Your task to perform on an android device: move a message to another label in the gmail app Image 0: 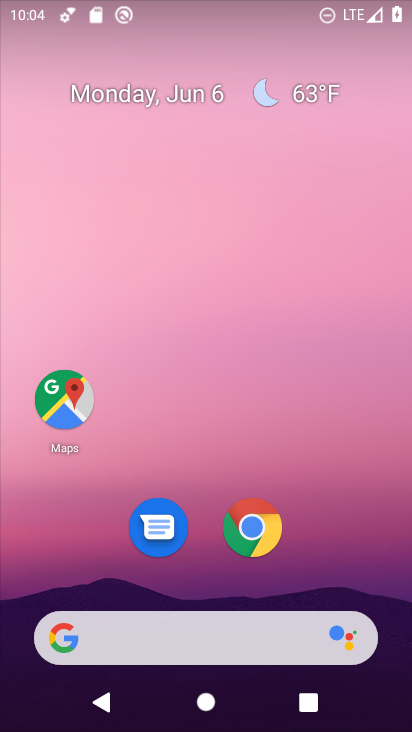
Step 0: drag from (349, 562) to (407, 234)
Your task to perform on an android device: move a message to another label in the gmail app Image 1: 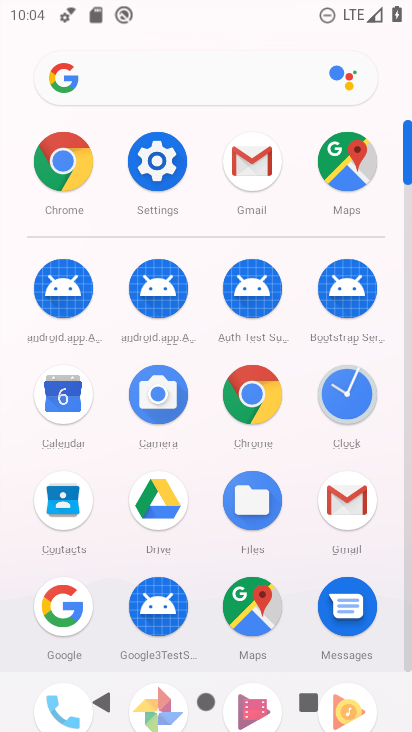
Step 1: click (255, 169)
Your task to perform on an android device: move a message to another label in the gmail app Image 2: 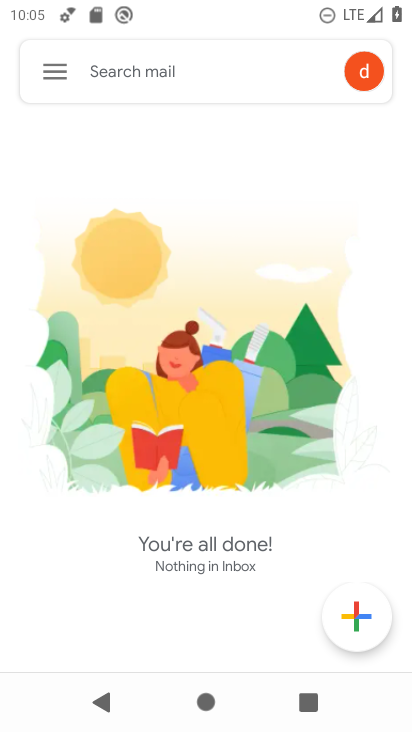
Step 2: task complete